Your task to perform on an android device: Show me recent news Image 0: 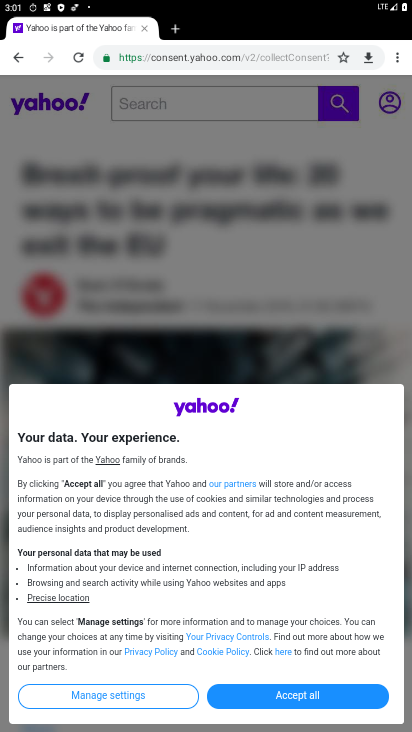
Step 0: press home button
Your task to perform on an android device: Show me recent news Image 1: 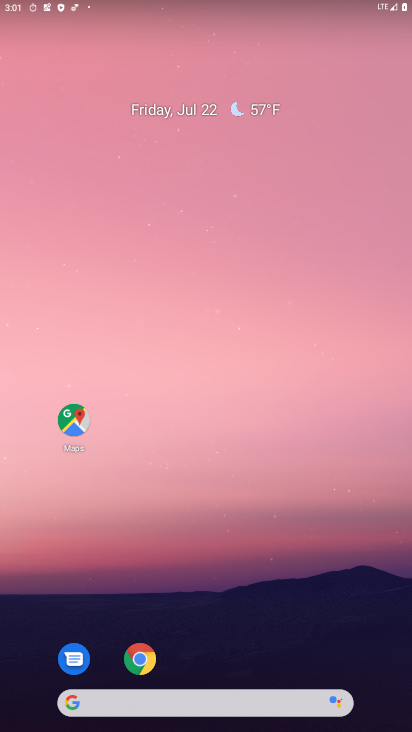
Step 1: click (176, 708)
Your task to perform on an android device: Show me recent news Image 2: 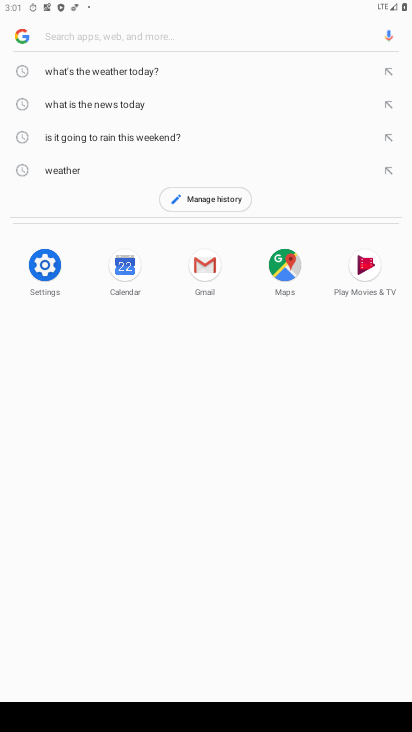
Step 2: type "recent news"
Your task to perform on an android device: Show me recent news Image 3: 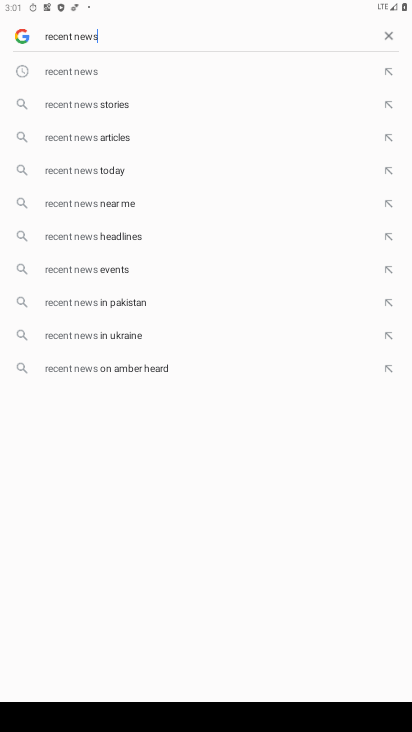
Step 3: click (48, 64)
Your task to perform on an android device: Show me recent news Image 4: 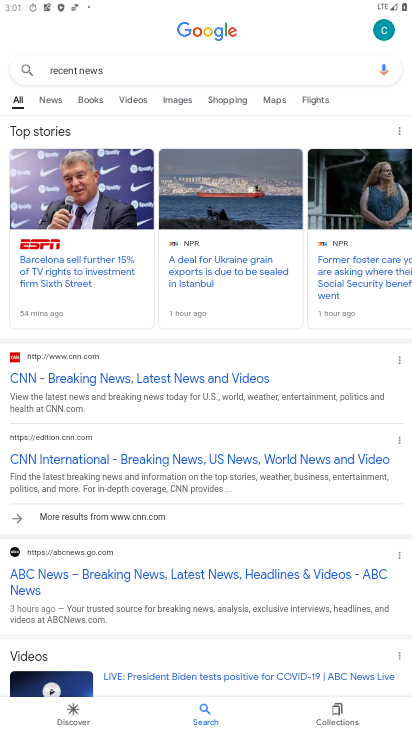
Step 4: task complete